Your task to perform on an android device: Open Reddit.com Image 0: 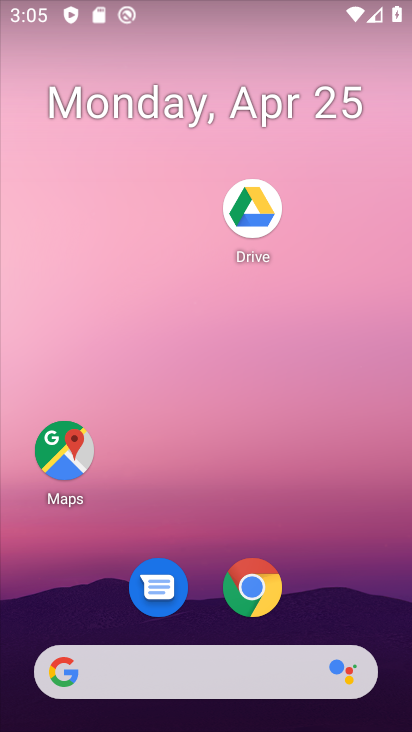
Step 0: click (241, 591)
Your task to perform on an android device: Open Reddit.com Image 1: 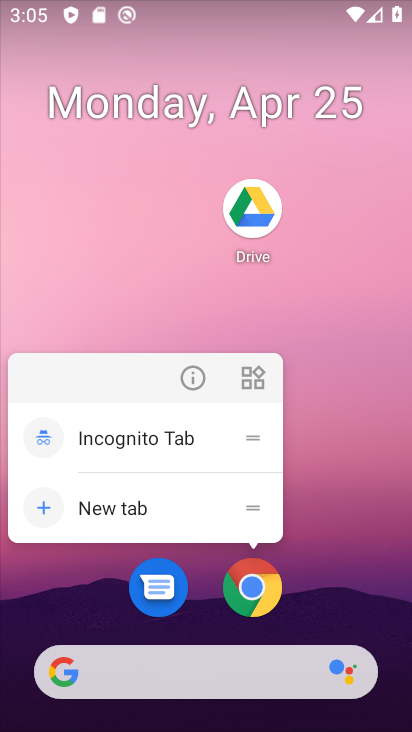
Step 1: click (258, 570)
Your task to perform on an android device: Open Reddit.com Image 2: 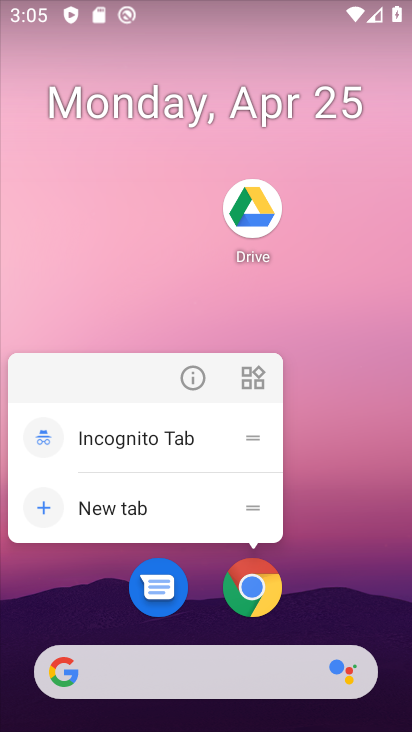
Step 2: click (258, 570)
Your task to perform on an android device: Open Reddit.com Image 3: 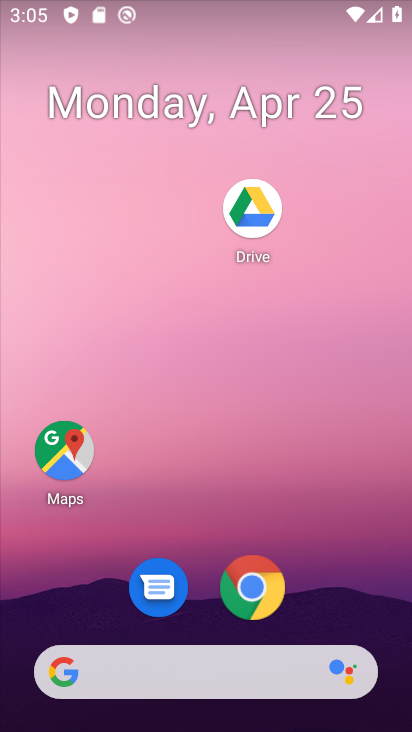
Step 3: click (258, 570)
Your task to perform on an android device: Open Reddit.com Image 4: 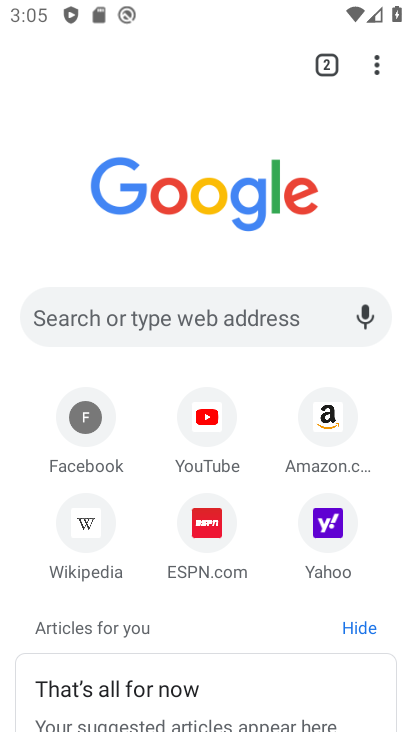
Step 4: click (151, 300)
Your task to perform on an android device: Open Reddit.com Image 5: 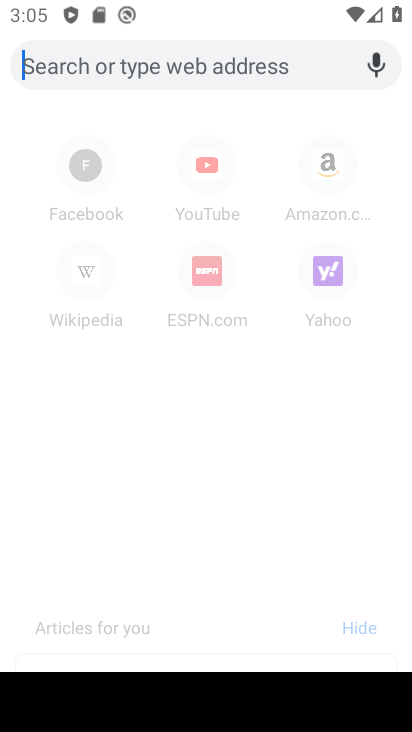
Step 5: click (226, 71)
Your task to perform on an android device: Open Reddit.com Image 6: 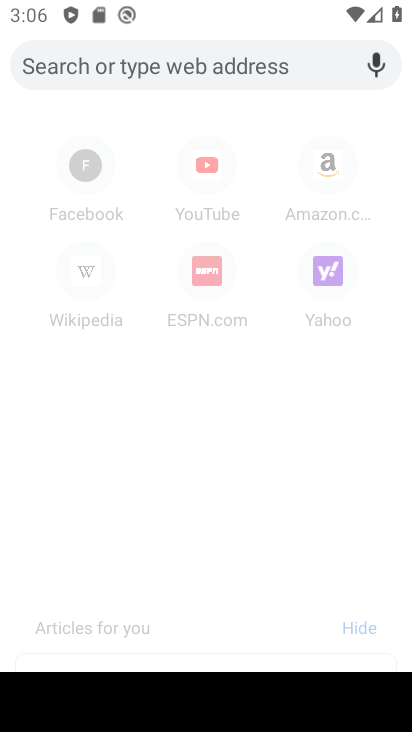
Step 6: type "reddit.com"
Your task to perform on an android device: Open Reddit.com Image 7: 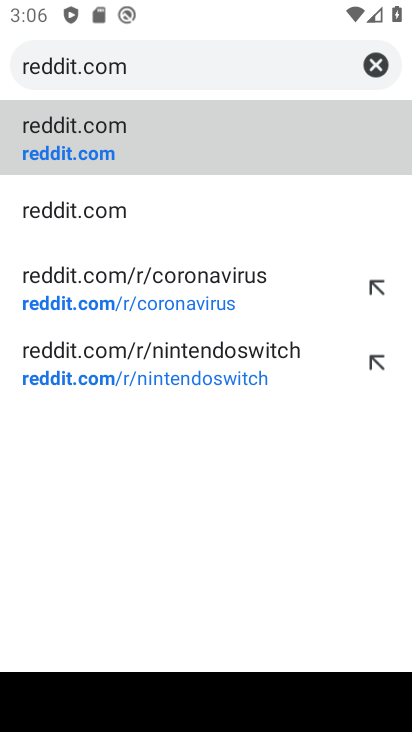
Step 7: click (64, 141)
Your task to perform on an android device: Open Reddit.com Image 8: 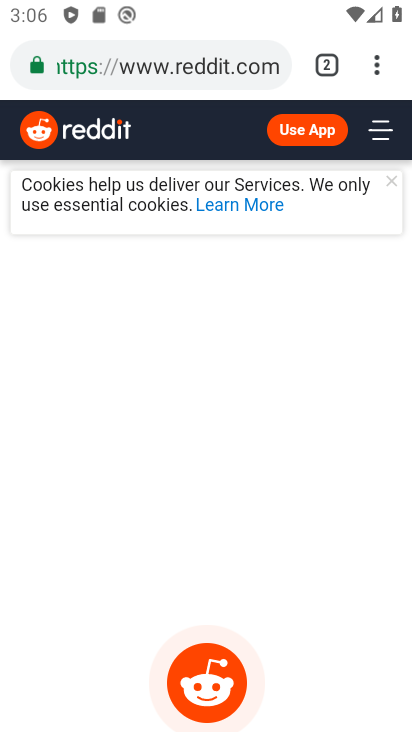
Step 8: task complete